Your task to perform on an android device: Open the calendar Image 0: 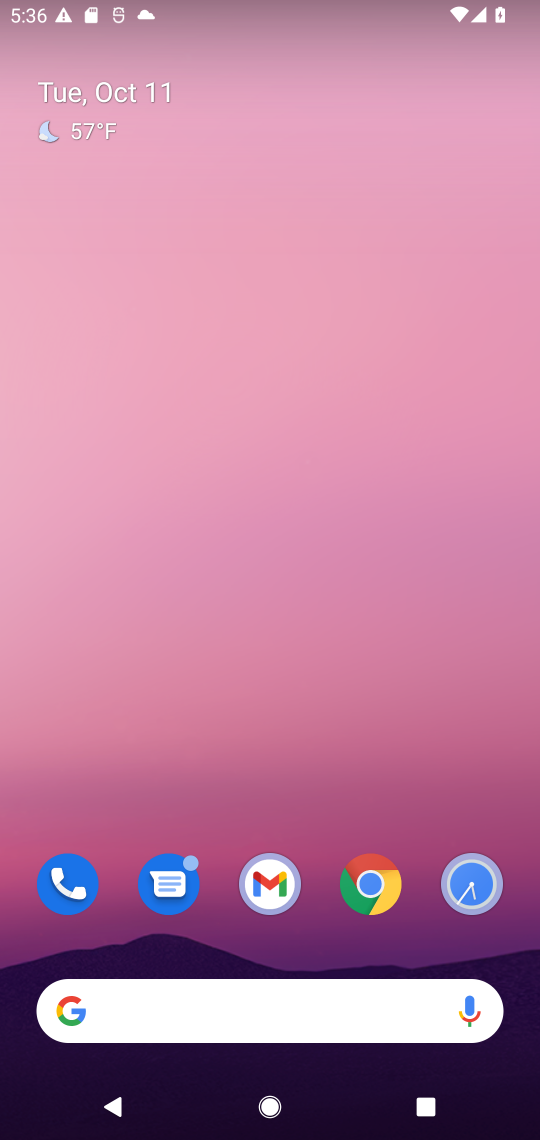
Step 0: press home button
Your task to perform on an android device: Open the calendar Image 1: 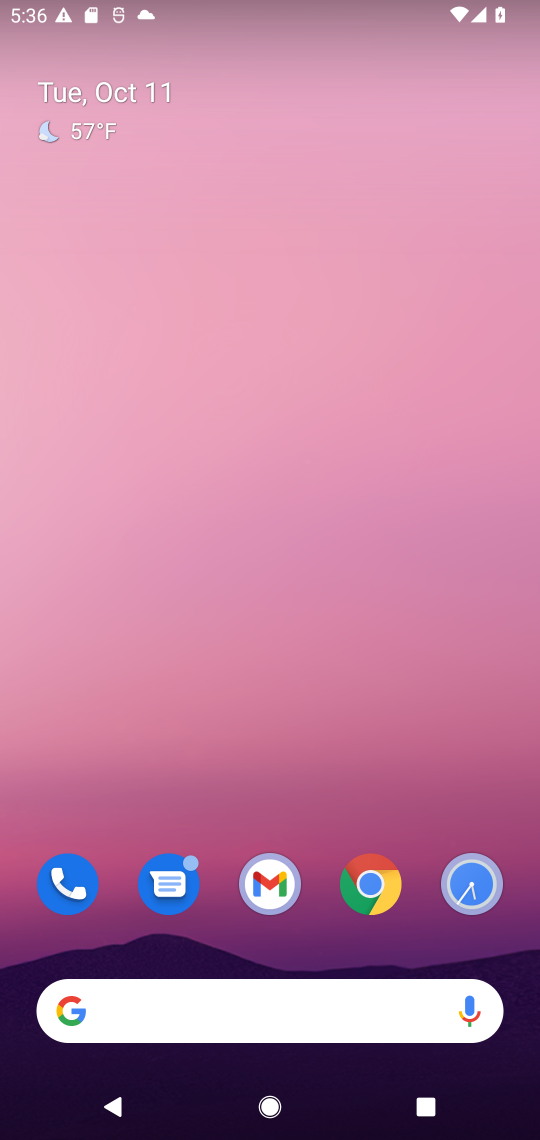
Step 1: drag from (312, 968) to (296, 87)
Your task to perform on an android device: Open the calendar Image 2: 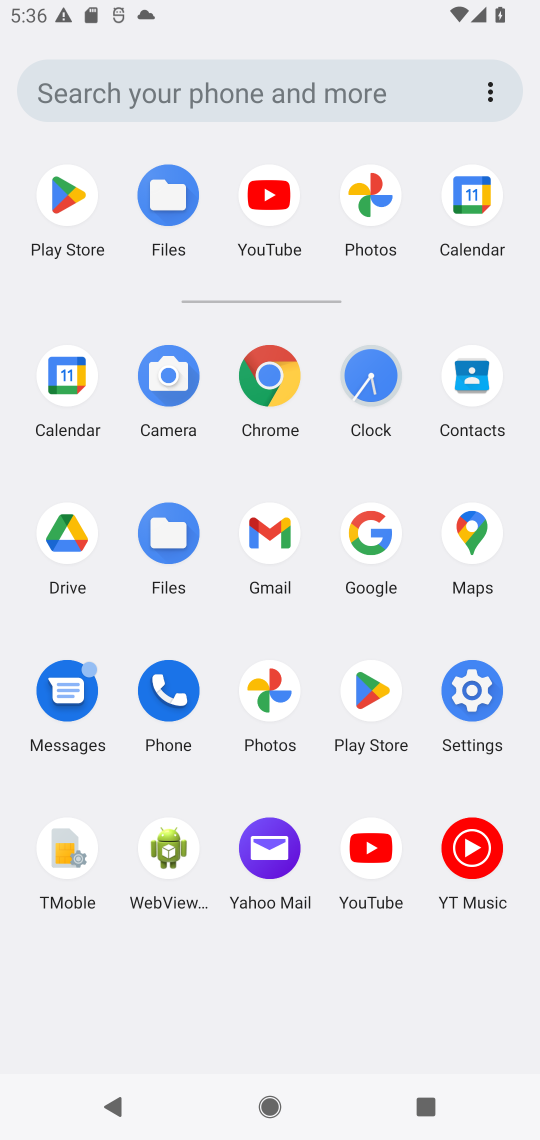
Step 2: click (59, 384)
Your task to perform on an android device: Open the calendar Image 3: 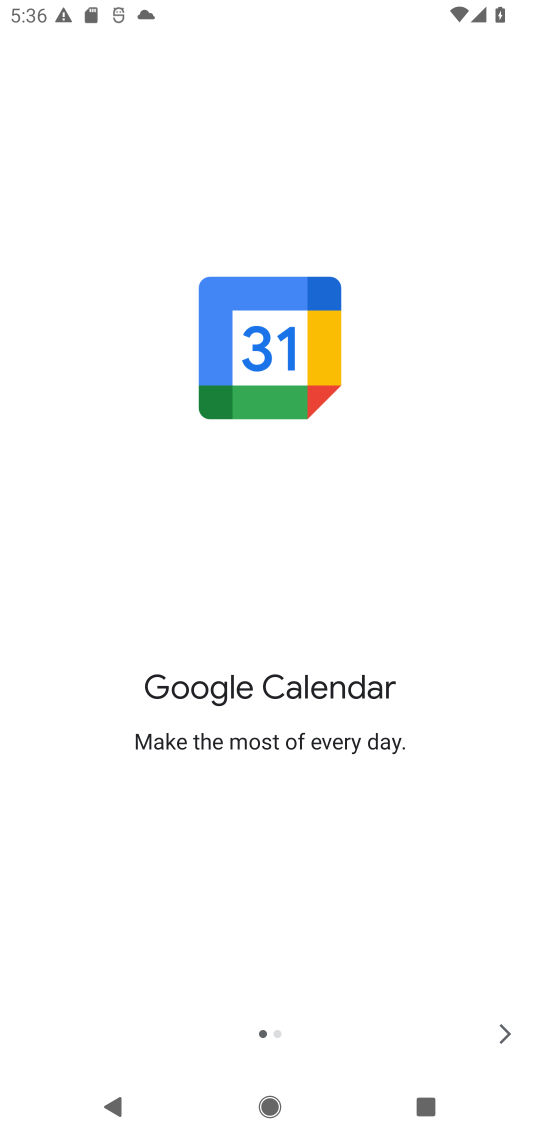
Step 3: click (506, 1027)
Your task to perform on an android device: Open the calendar Image 4: 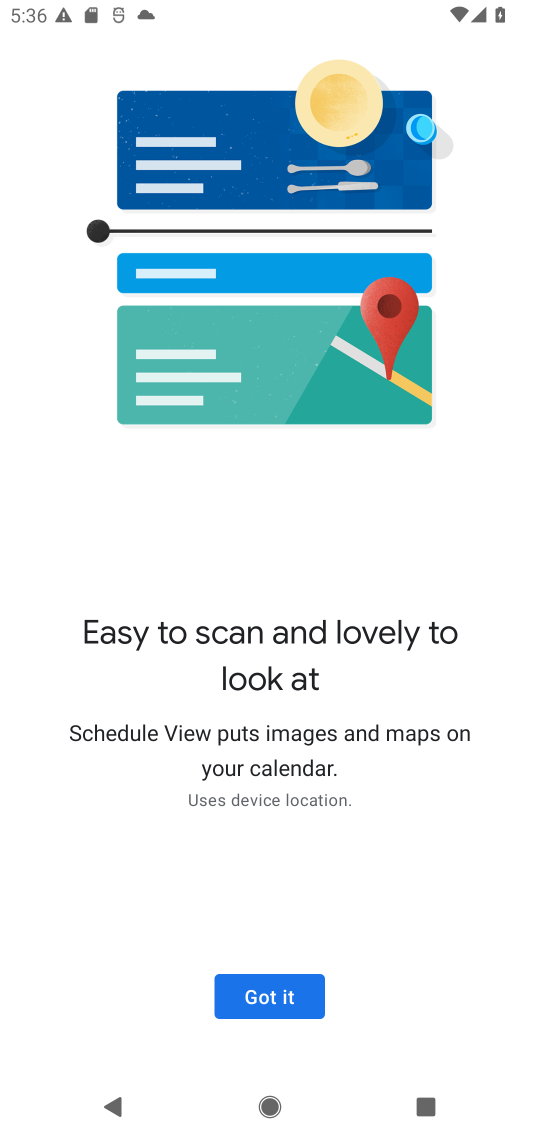
Step 4: click (259, 997)
Your task to perform on an android device: Open the calendar Image 5: 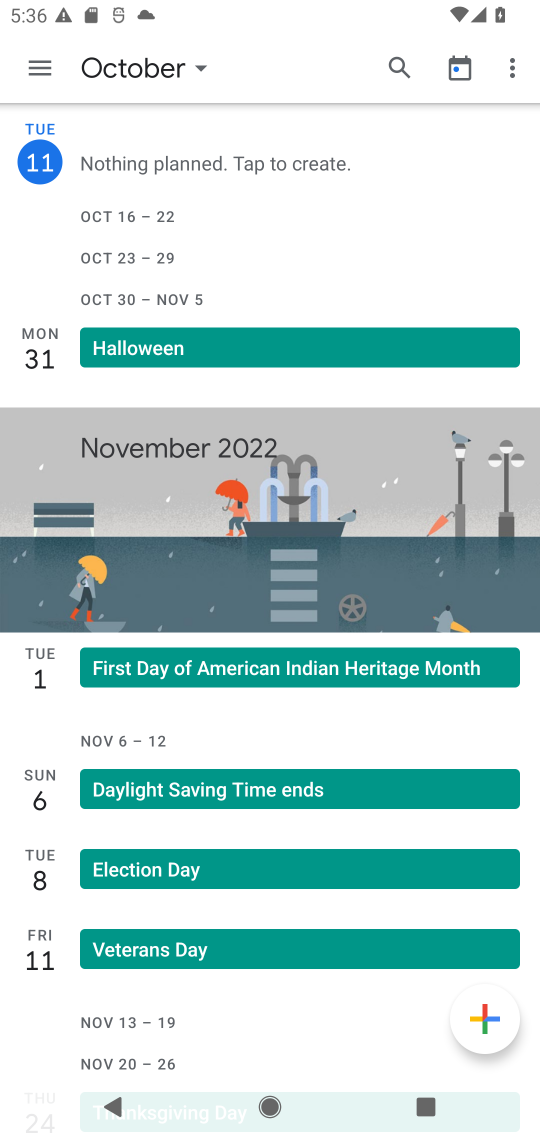
Step 5: task complete